Your task to perform on an android device: Go to location settings Image 0: 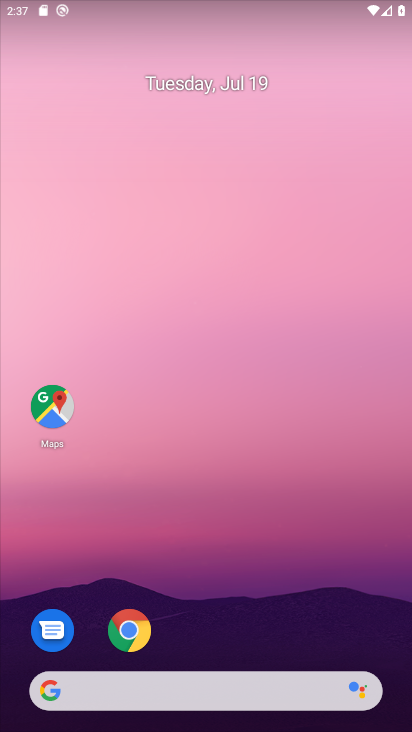
Step 0: drag from (247, 541) to (186, 188)
Your task to perform on an android device: Go to location settings Image 1: 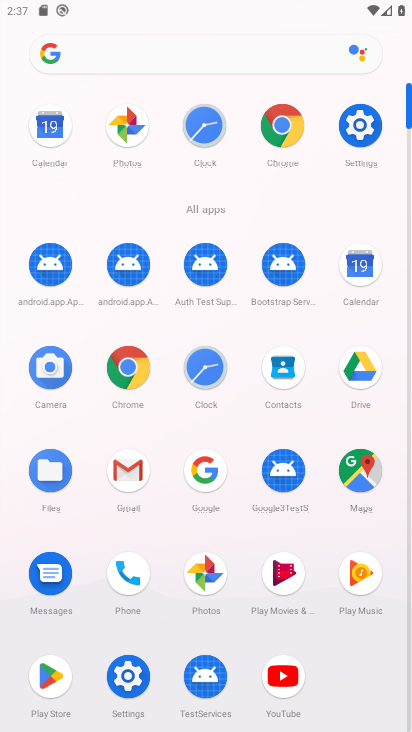
Step 1: click (364, 125)
Your task to perform on an android device: Go to location settings Image 2: 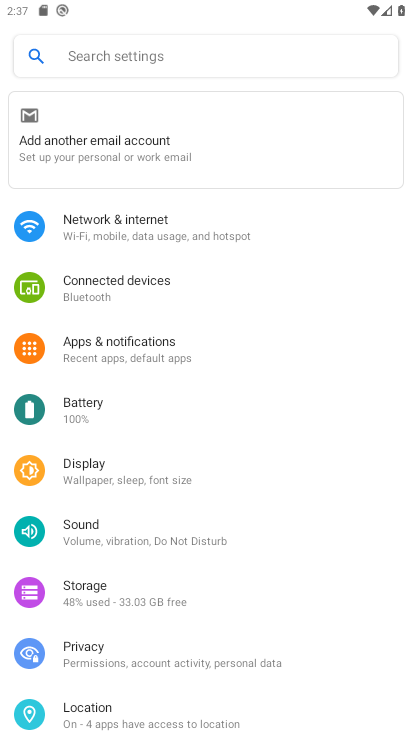
Step 2: click (91, 707)
Your task to perform on an android device: Go to location settings Image 3: 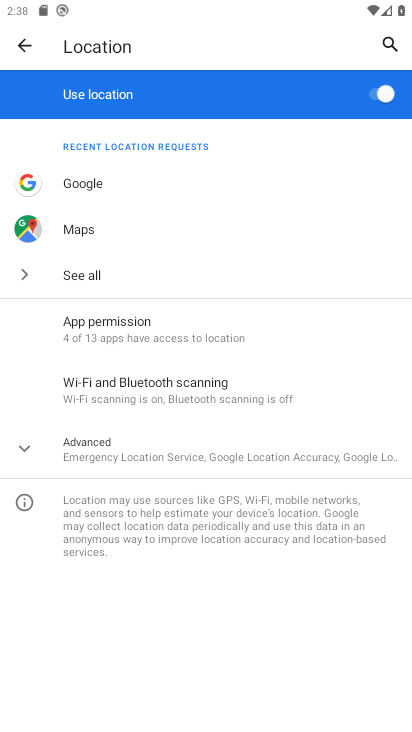
Step 3: task complete